Your task to perform on an android device: Search for seafood restaurants on Google Maps Image 0: 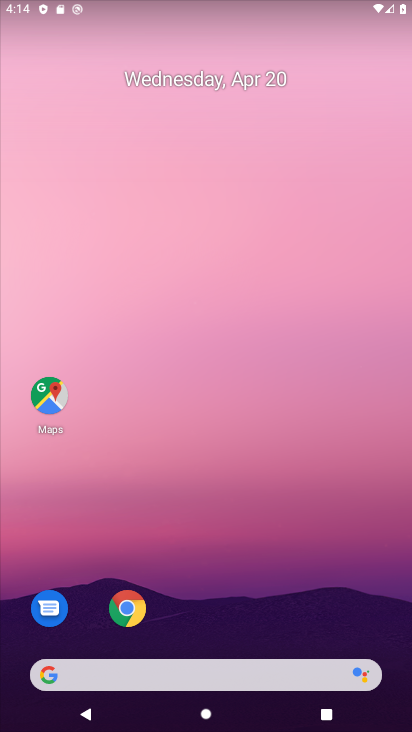
Step 0: click (38, 399)
Your task to perform on an android device: Search for seafood restaurants on Google Maps Image 1: 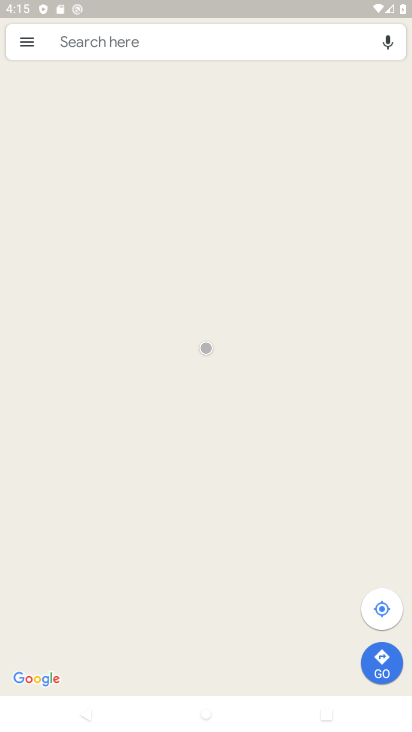
Step 1: click (243, 38)
Your task to perform on an android device: Search for seafood restaurants on Google Maps Image 2: 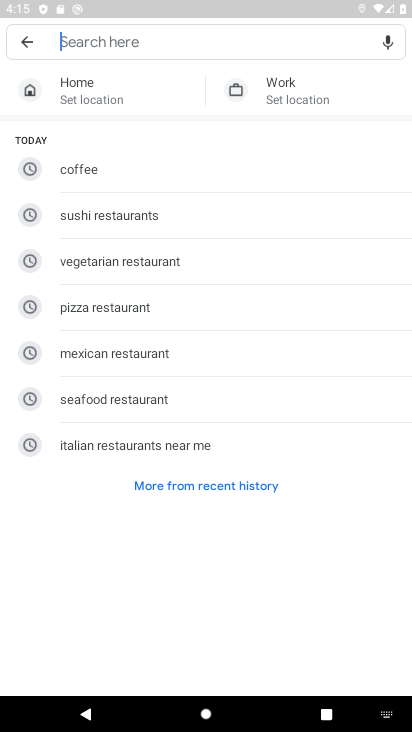
Step 2: click (262, 388)
Your task to perform on an android device: Search for seafood restaurants on Google Maps Image 3: 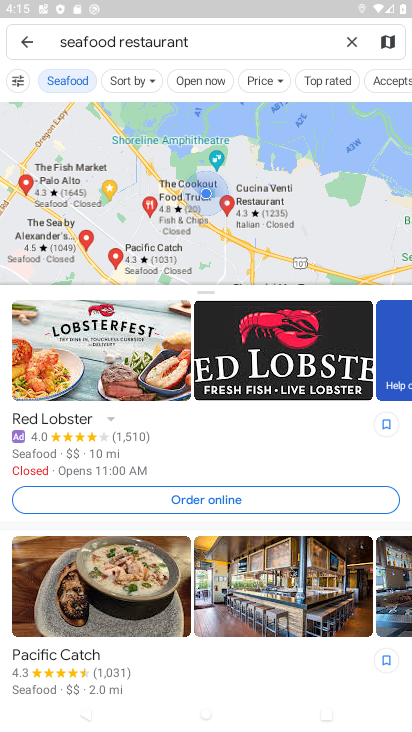
Step 3: task complete